Your task to perform on an android device: turn vacation reply on in the gmail app Image 0: 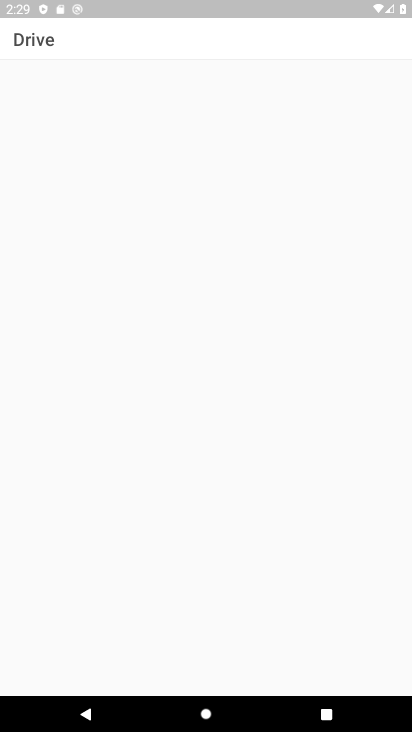
Step 0: press home button
Your task to perform on an android device: turn vacation reply on in the gmail app Image 1: 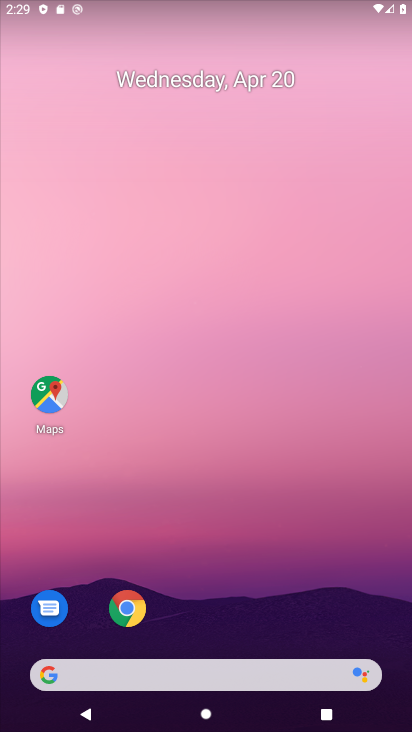
Step 1: drag from (132, 255) to (209, 88)
Your task to perform on an android device: turn vacation reply on in the gmail app Image 2: 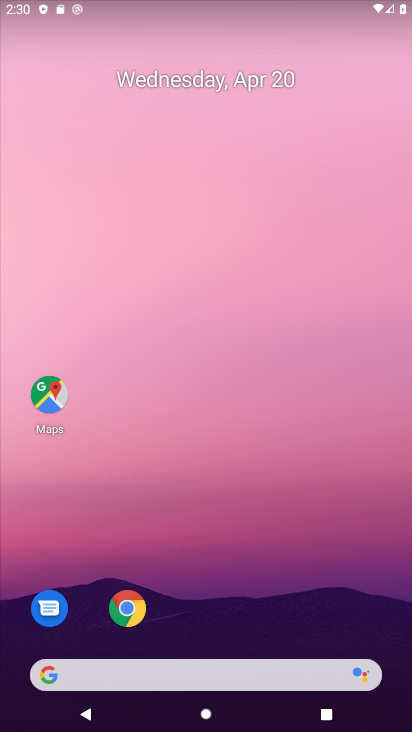
Step 2: drag from (123, 646) to (199, 315)
Your task to perform on an android device: turn vacation reply on in the gmail app Image 3: 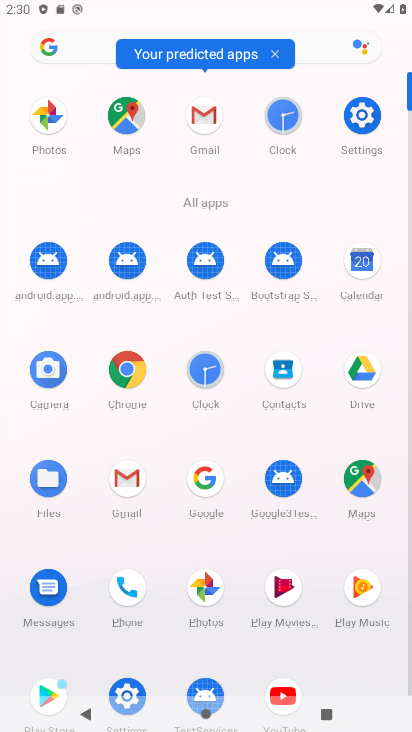
Step 3: click (123, 497)
Your task to perform on an android device: turn vacation reply on in the gmail app Image 4: 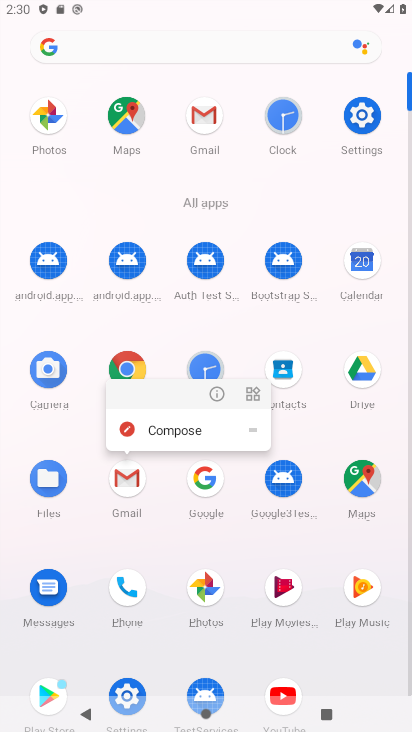
Step 4: click (211, 384)
Your task to perform on an android device: turn vacation reply on in the gmail app Image 5: 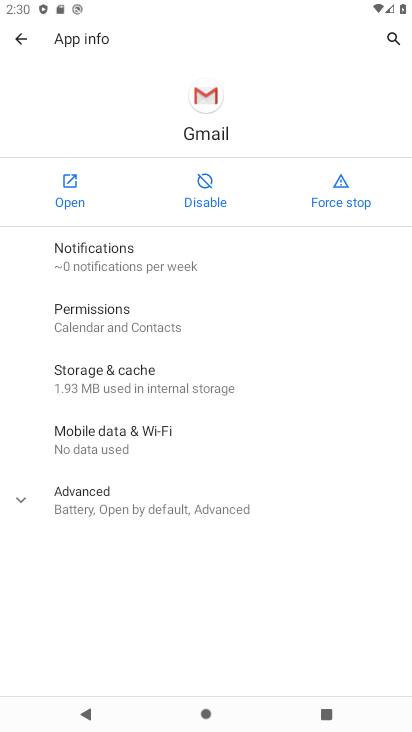
Step 5: click (68, 193)
Your task to perform on an android device: turn vacation reply on in the gmail app Image 6: 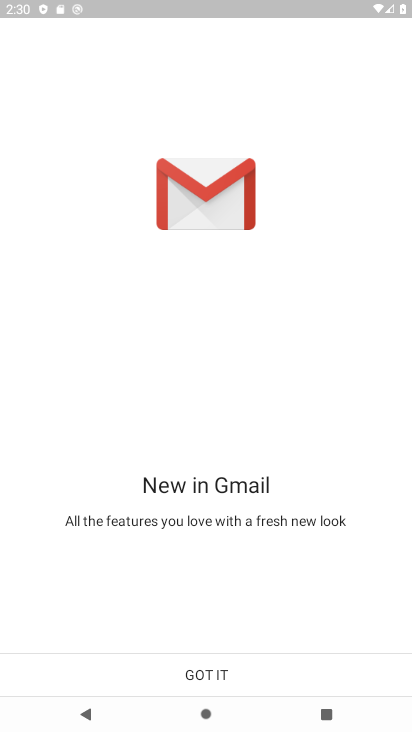
Step 6: click (209, 688)
Your task to perform on an android device: turn vacation reply on in the gmail app Image 7: 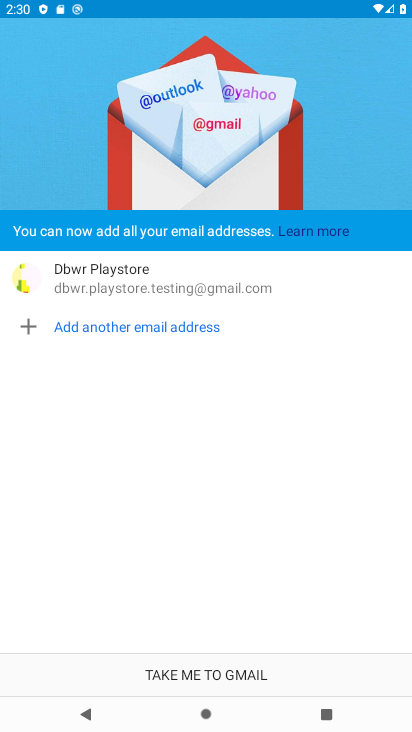
Step 7: click (190, 676)
Your task to perform on an android device: turn vacation reply on in the gmail app Image 8: 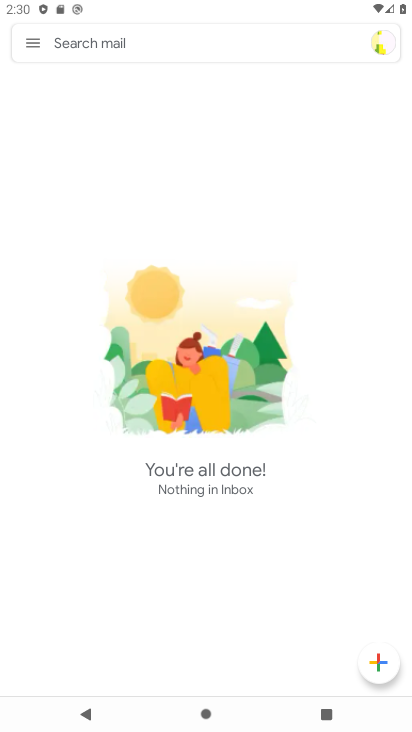
Step 8: click (26, 44)
Your task to perform on an android device: turn vacation reply on in the gmail app Image 9: 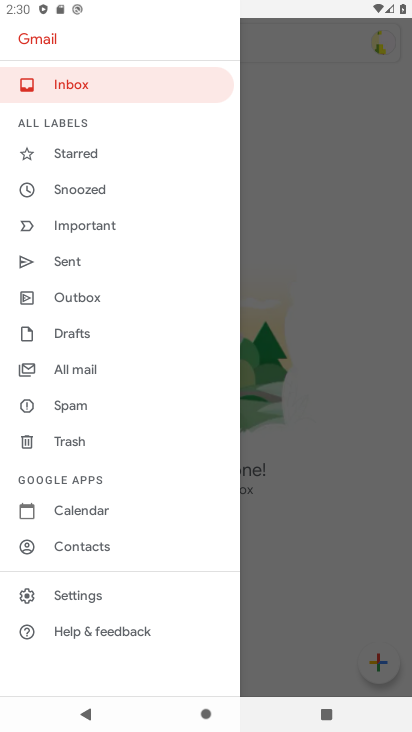
Step 9: click (111, 597)
Your task to perform on an android device: turn vacation reply on in the gmail app Image 10: 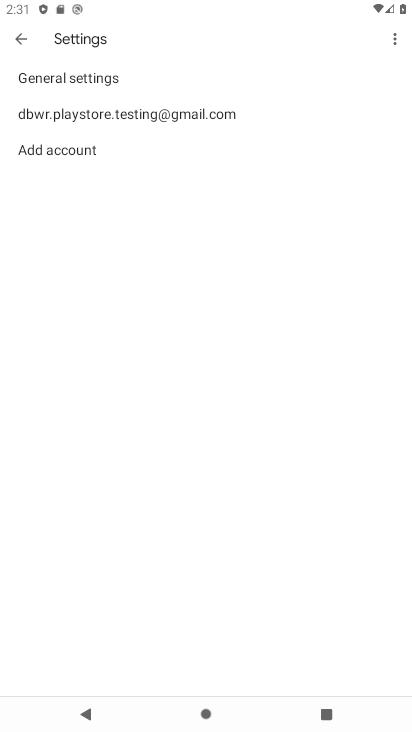
Step 10: click (158, 117)
Your task to perform on an android device: turn vacation reply on in the gmail app Image 11: 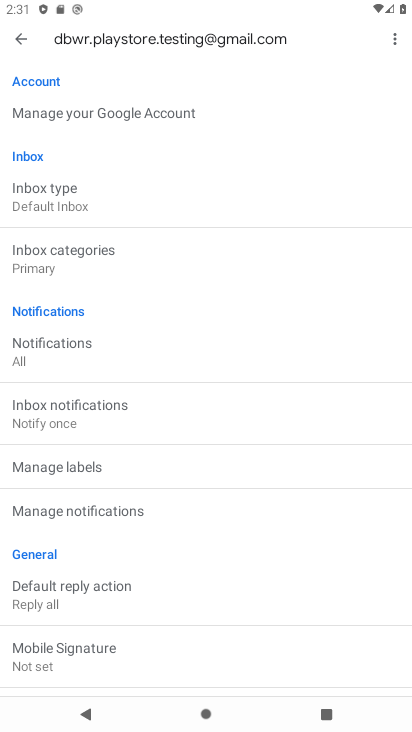
Step 11: drag from (171, 594) to (202, 373)
Your task to perform on an android device: turn vacation reply on in the gmail app Image 12: 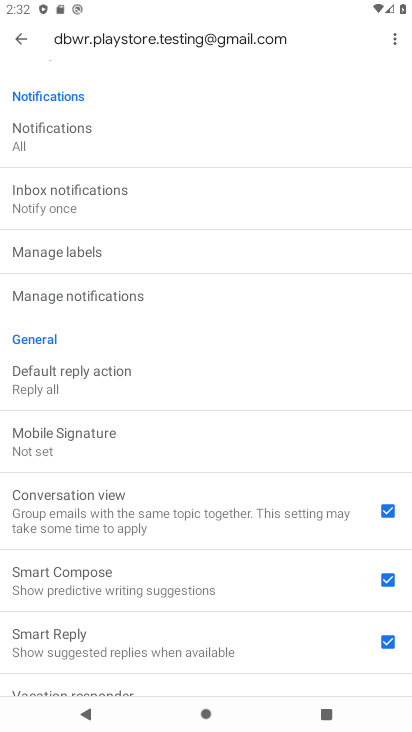
Step 12: drag from (254, 627) to (297, 328)
Your task to perform on an android device: turn vacation reply on in the gmail app Image 13: 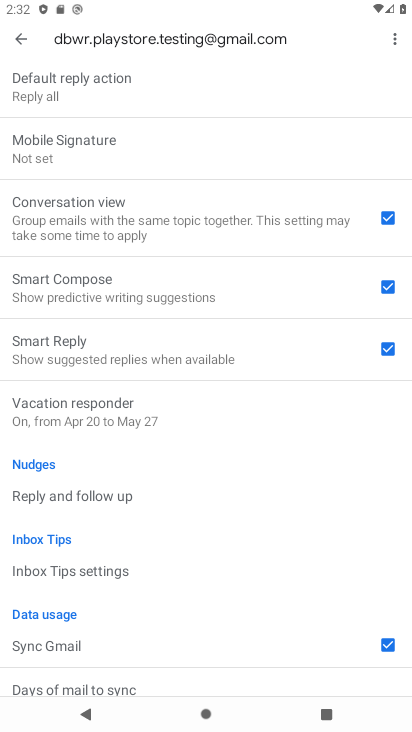
Step 13: click (178, 409)
Your task to perform on an android device: turn vacation reply on in the gmail app Image 14: 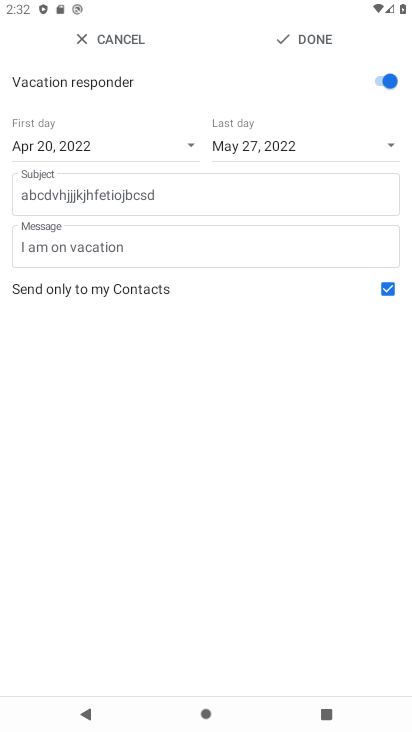
Step 14: task complete